Your task to perform on an android device: Open privacy settings Image 0: 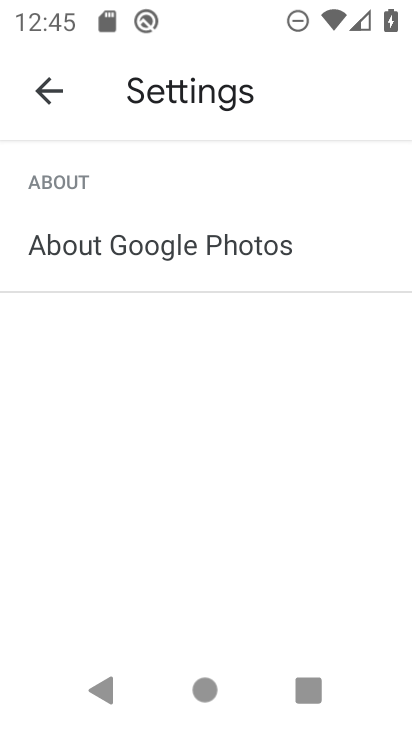
Step 0: press home button
Your task to perform on an android device: Open privacy settings Image 1: 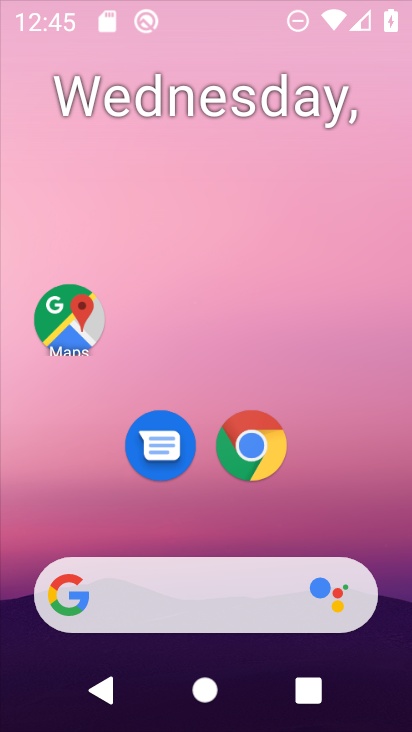
Step 1: drag from (378, 656) to (270, 26)
Your task to perform on an android device: Open privacy settings Image 2: 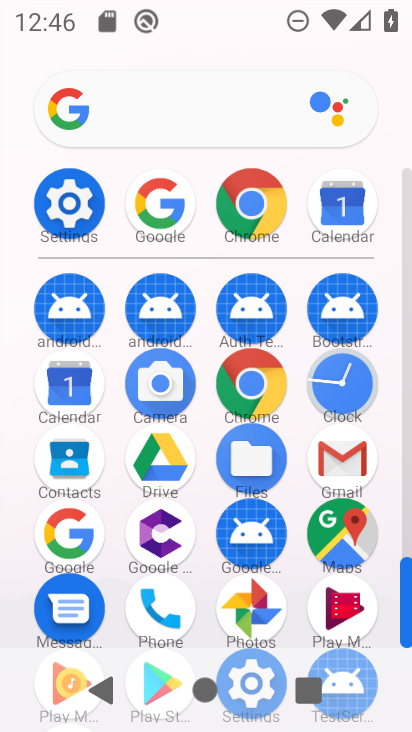
Step 2: click (65, 220)
Your task to perform on an android device: Open privacy settings Image 3: 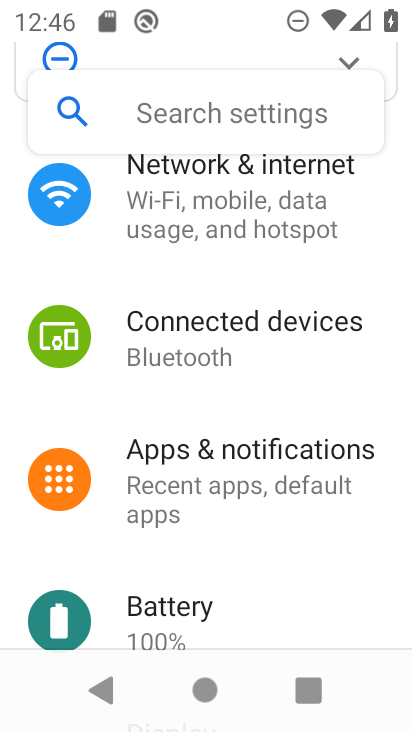
Step 3: drag from (264, 538) to (281, 151)
Your task to perform on an android device: Open privacy settings Image 4: 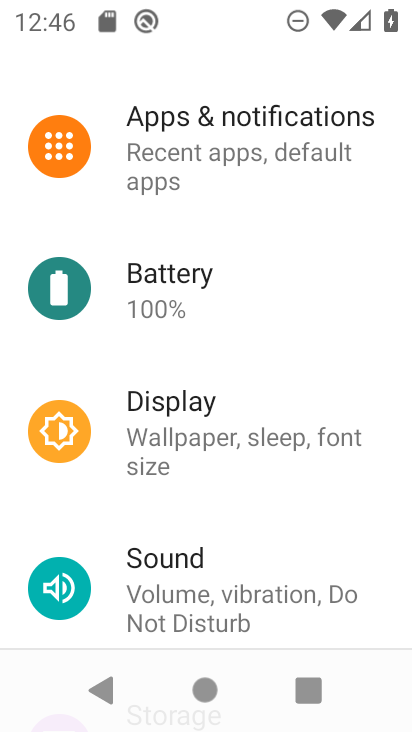
Step 4: drag from (167, 575) to (173, 136)
Your task to perform on an android device: Open privacy settings Image 5: 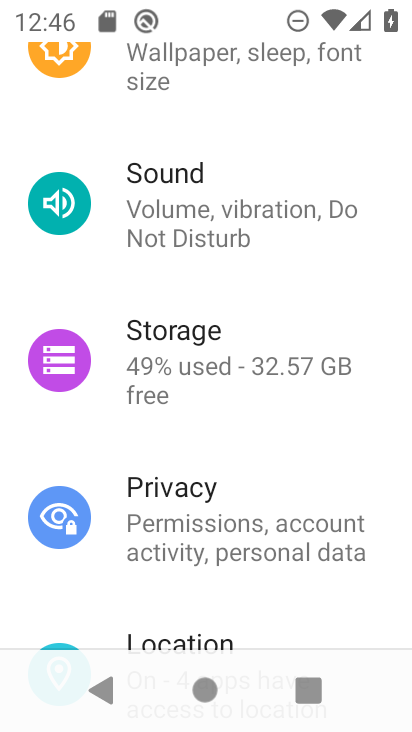
Step 5: click (181, 496)
Your task to perform on an android device: Open privacy settings Image 6: 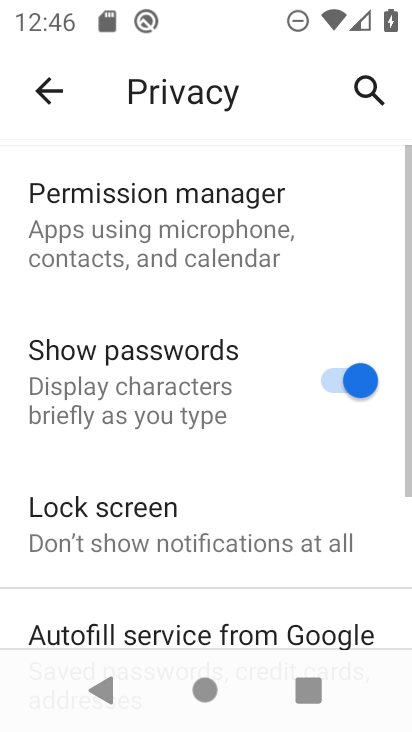
Step 6: task complete